Your task to perform on an android device: Search for a custom made wallet Image 0: 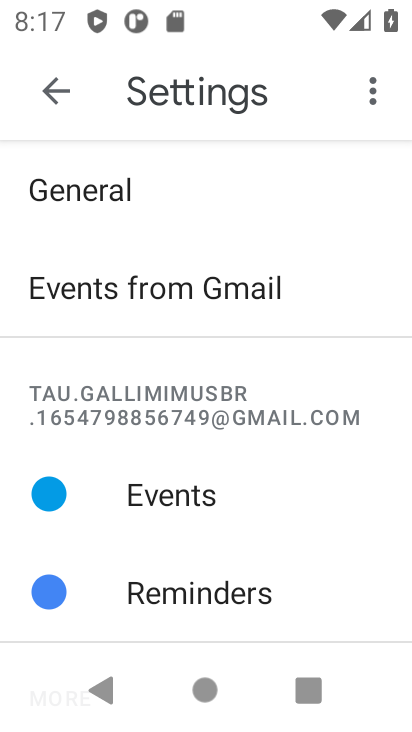
Step 0: press home button
Your task to perform on an android device: Search for a custom made wallet Image 1: 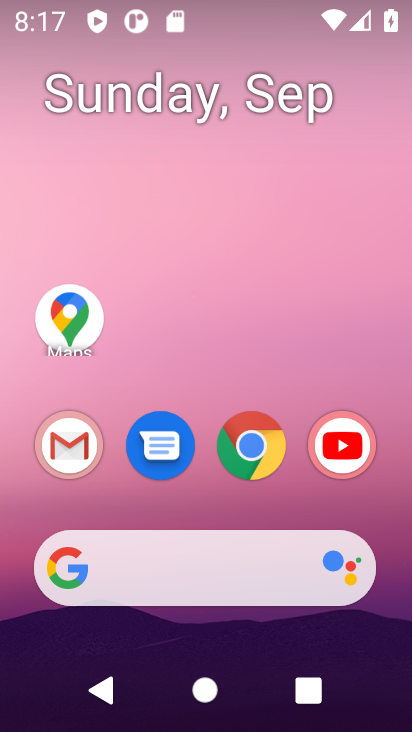
Step 1: drag from (212, 586) to (250, 105)
Your task to perform on an android device: Search for a custom made wallet Image 2: 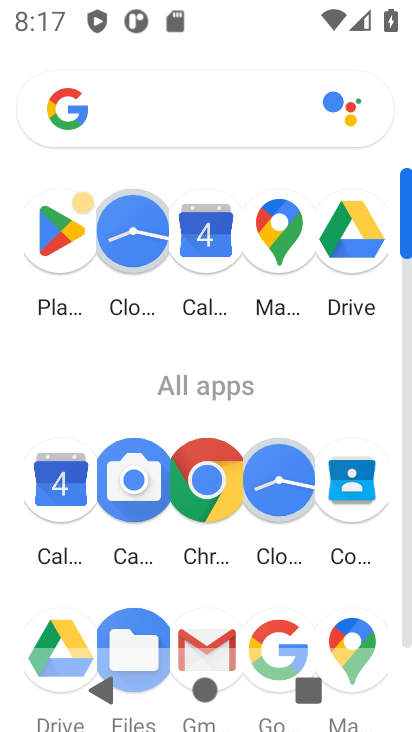
Step 2: click (219, 146)
Your task to perform on an android device: Search for a custom made wallet Image 3: 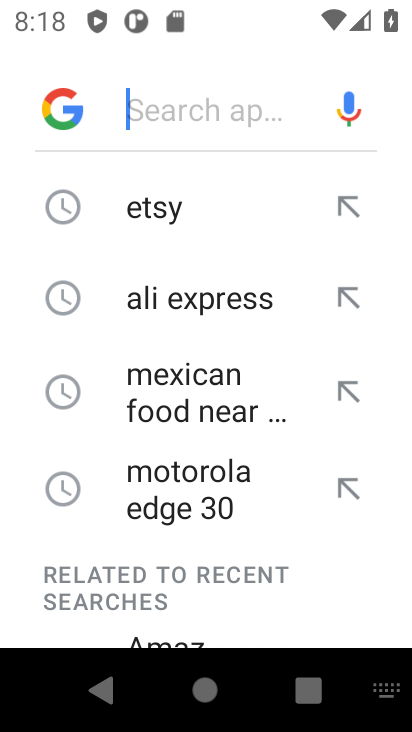
Step 3: type "custom made wallet"
Your task to perform on an android device: Search for a custom made wallet Image 4: 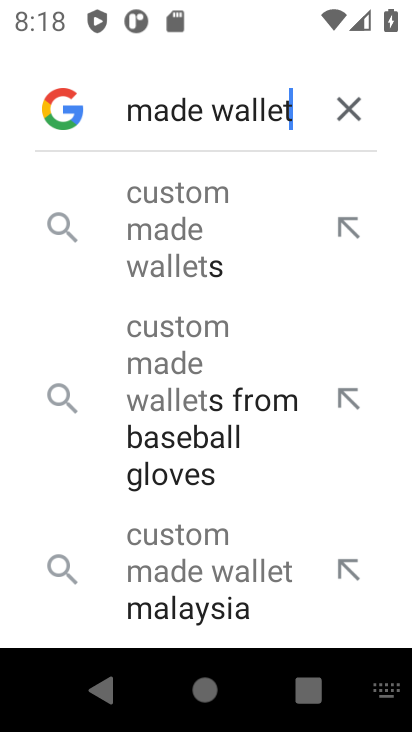
Step 4: press enter
Your task to perform on an android device: Search for a custom made wallet Image 5: 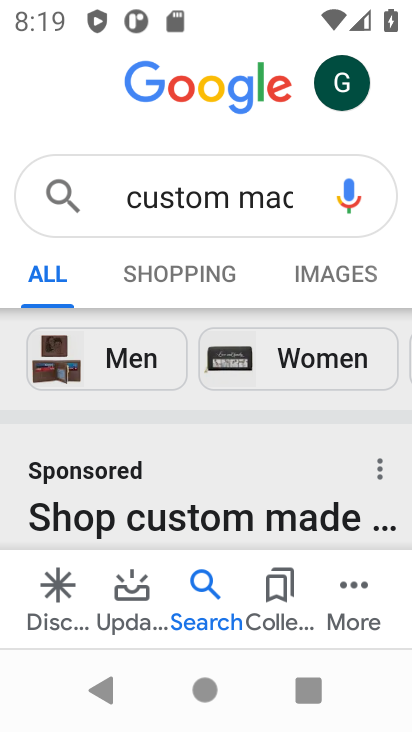
Step 5: task complete